Your task to perform on an android device: Do I have any events tomorrow? Image 0: 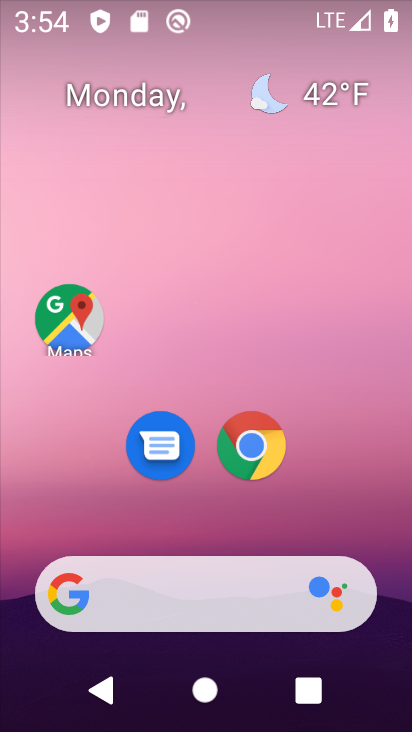
Step 0: drag from (2, 509) to (214, 53)
Your task to perform on an android device: Do I have any events tomorrow? Image 1: 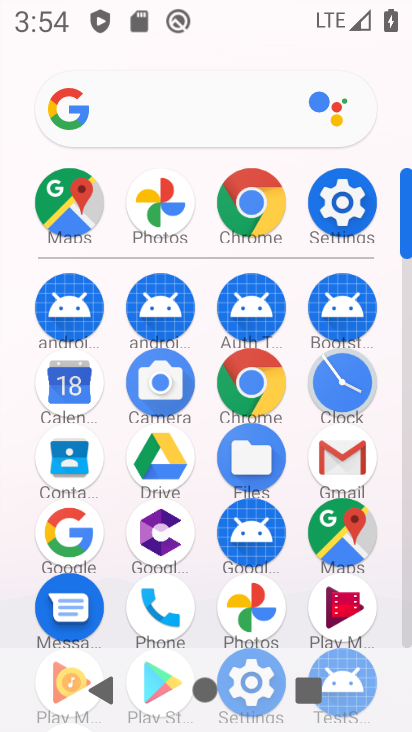
Step 1: click (70, 383)
Your task to perform on an android device: Do I have any events tomorrow? Image 2: 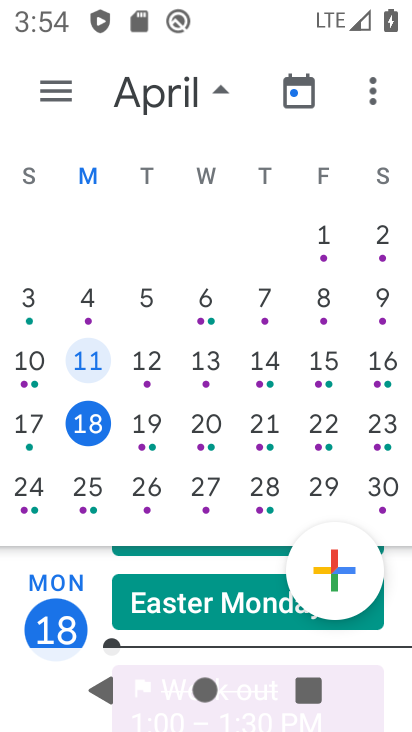
Step 2: drag from (104, 593) to (156, 134)
Your task to perform on an android device: Do I have any events tomorrow? Image 3: 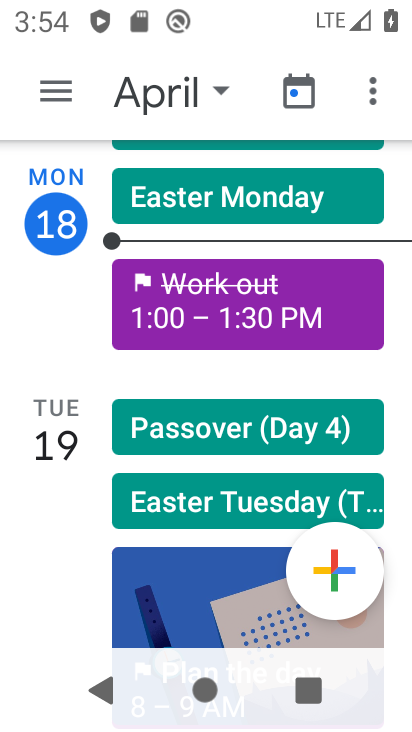
Step 3: click (70, 436)
Your task to perform on an android device: Do I have any events tomorrow? Image 4: 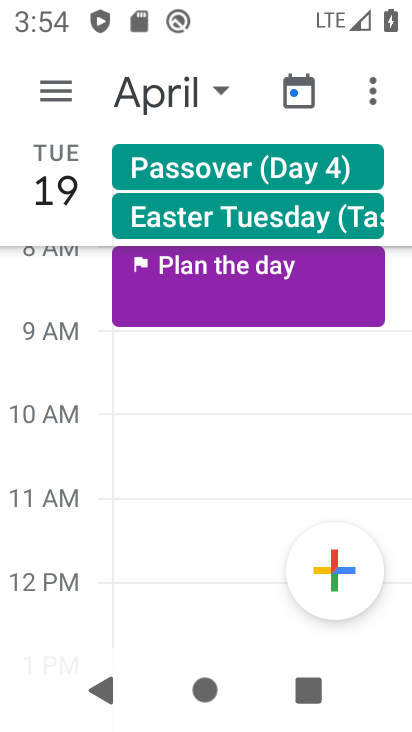
Step 4: task complete